Your task to perform on an android device: move an email to a new category in the gmail app Image 0: 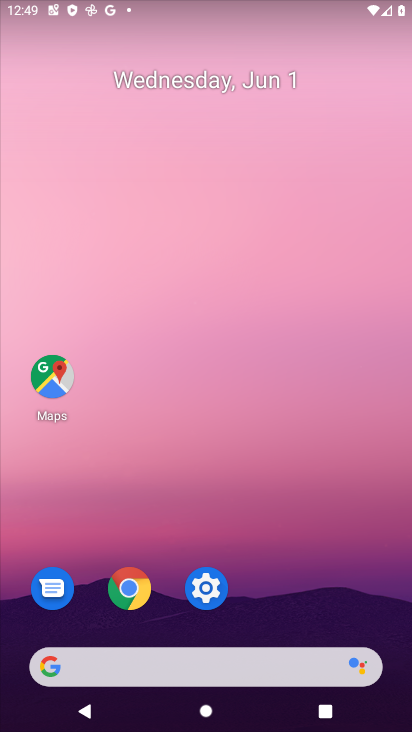
Step 0: drag from (239, 643) to (328, 297)
Your task to perform on an android device: move an email to a new category in the gmail app Image 1: 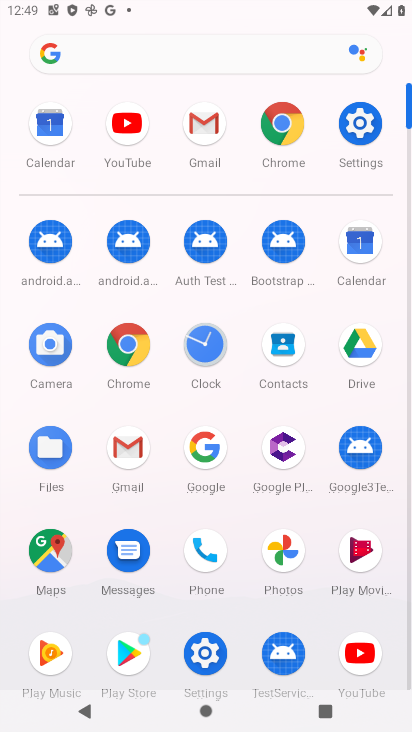
Step 1: click (142, 444)
Your task to perform on an android device: move an email to a new category in the gmail app Image 2: 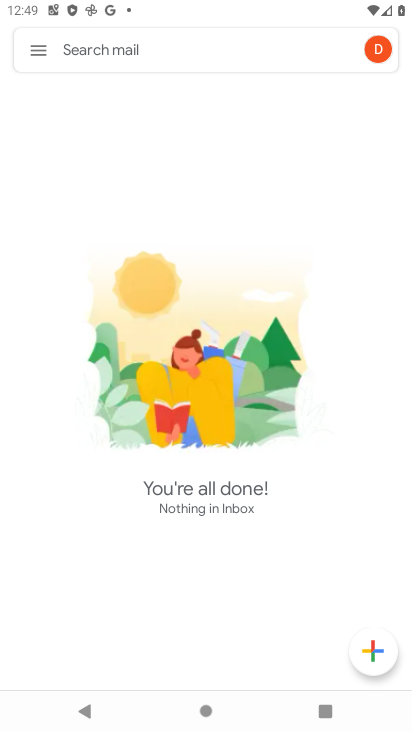
Step 2: click (43, 49)
Your task to perform on an android device: move an email to a new category in the gmail app Image 3: 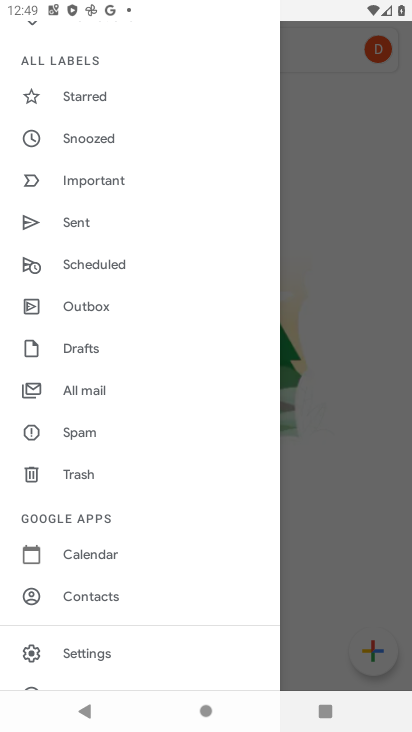
Step 3: click (92, 656)
Your task to perform on an android device: move an email to a new category in the gmail app Image 4: 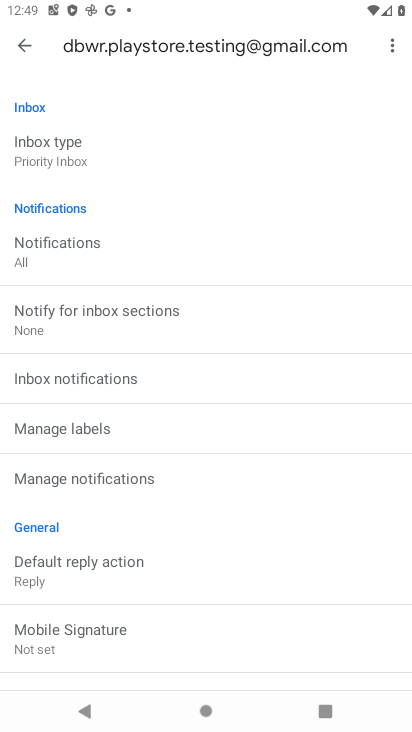
Step 4: click (80, 163)
Your task to perform on an android device: move an email to a new category in the gmail app Image 5: 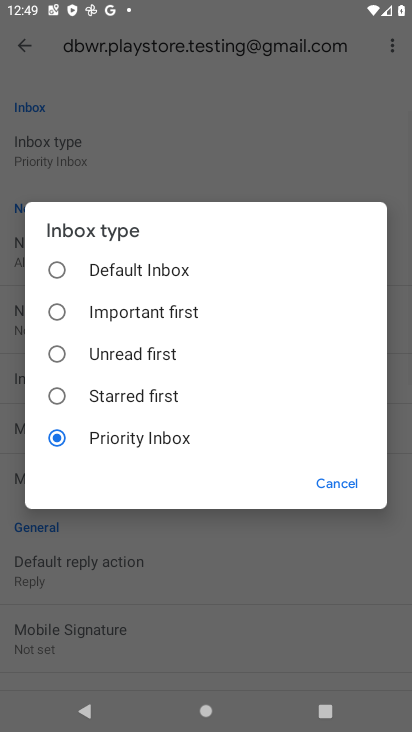
Step 5: click (82, 256)
Your task to perform on an android device: move an email to a new category in the gmail app Image 6: 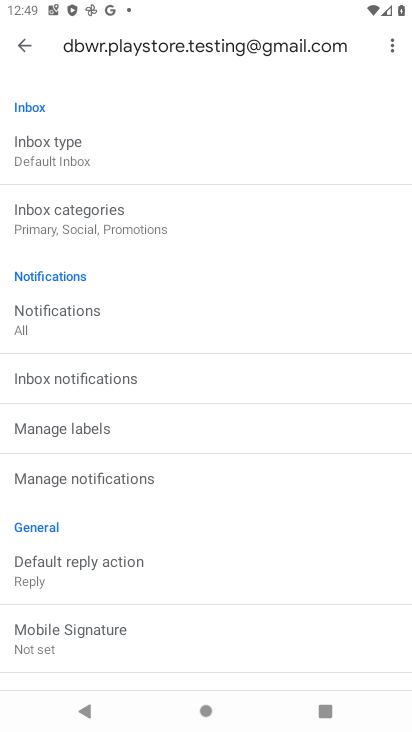
Step 6: click (85, 234)
Your task to perform on an android device: move an email to a new category in the gmail app Image 7: 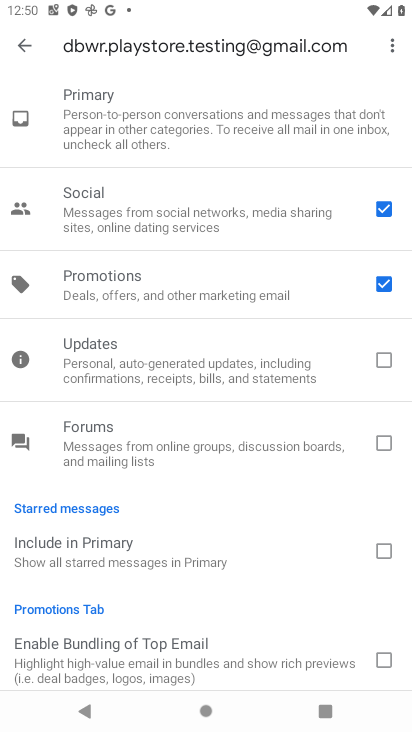
Step 7: task complete